Your task to perform on an android device: turn on location history Image 0: 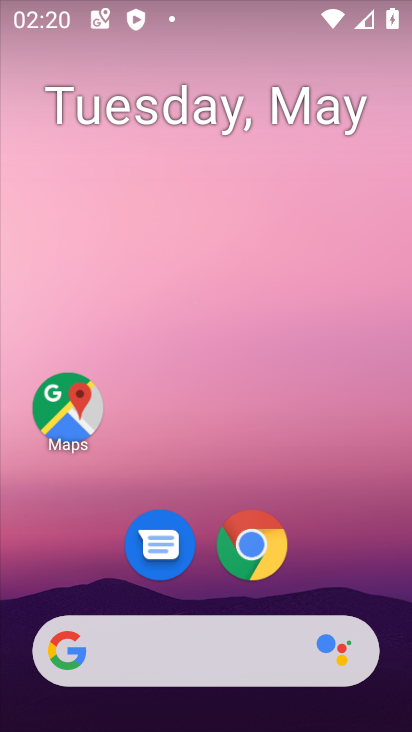
Step 0: click (67, 410)
Your task to perform on an android device: turn on location history Image 1: 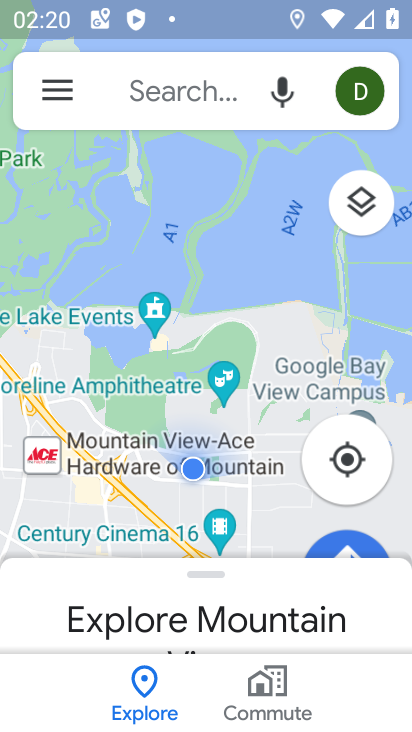
Step 1: click (58, 90)
Your task to perform on an android device: turn on location history Image 2: 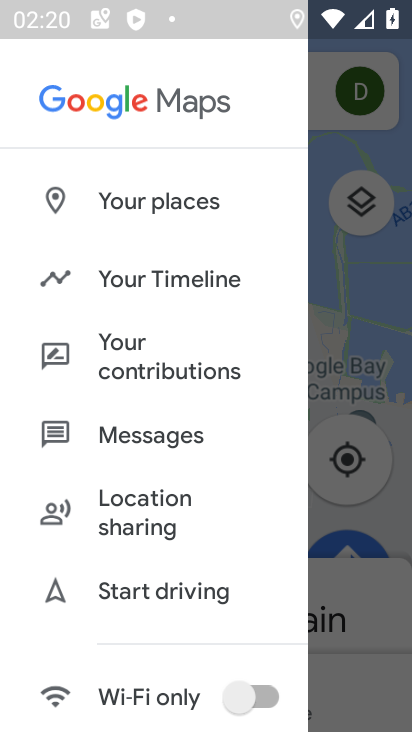
Step 2: drag from (248, 636) to (275, 77)
Your task to perform on an android device: turn on location history Image 3: 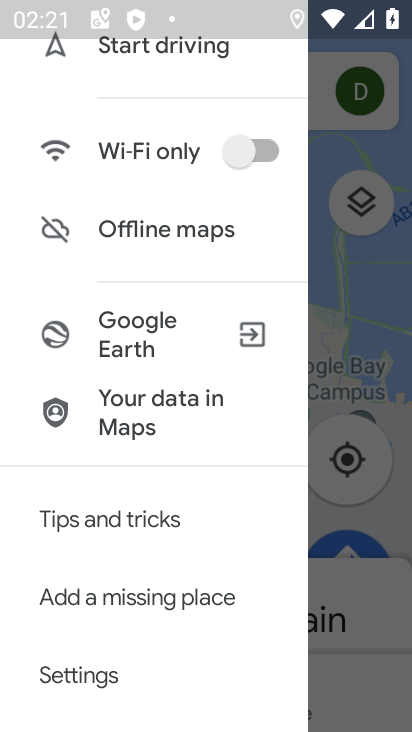
Step 3: drag from (229, 642) to (232, 144)
Your task to perform on an android device: turn on location history Image 4: 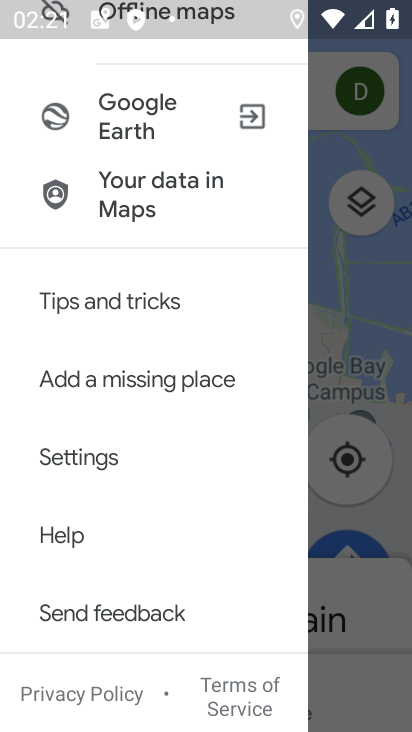
Step 4: click (82, 462)
Your task to perform on an android device: turn on location history Image 5: 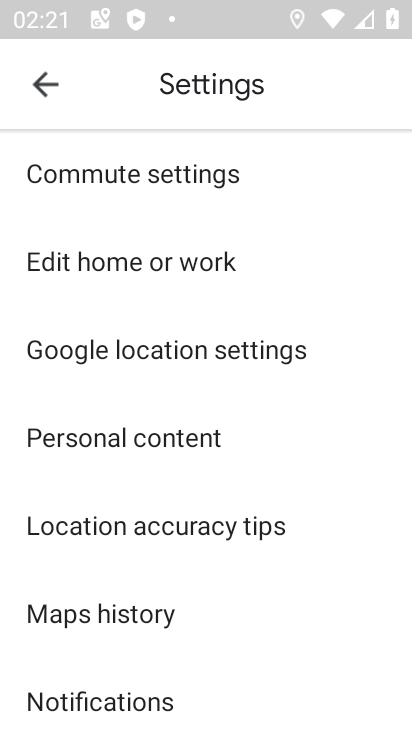
Step 5: click (99, 448)
Your task to perform on an android device: turn on location history Image 6: 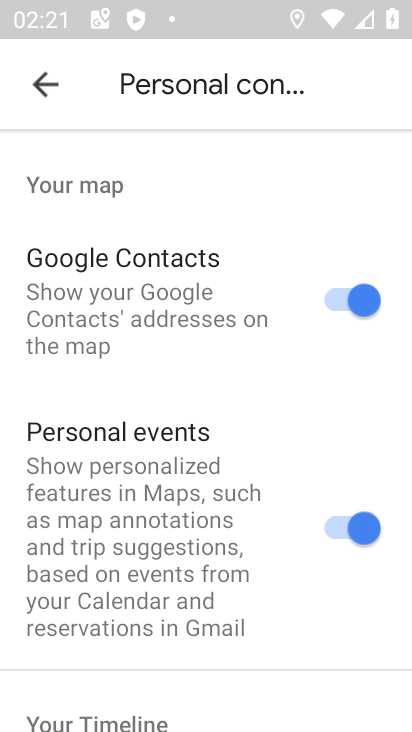
Step 6: drag from (289, 686) to (306, 208)
Your task to perform on an android device: turn on location history Image 7: 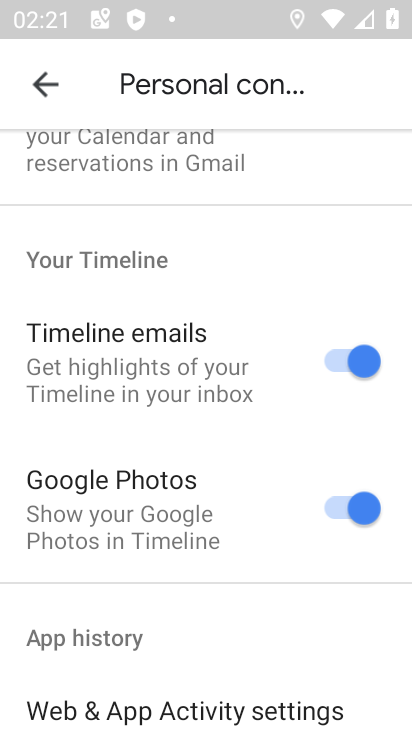
Step 7: drag from (260, 605) to (271, 141)
Your task to perform on an android device: turn on location history Image 8: 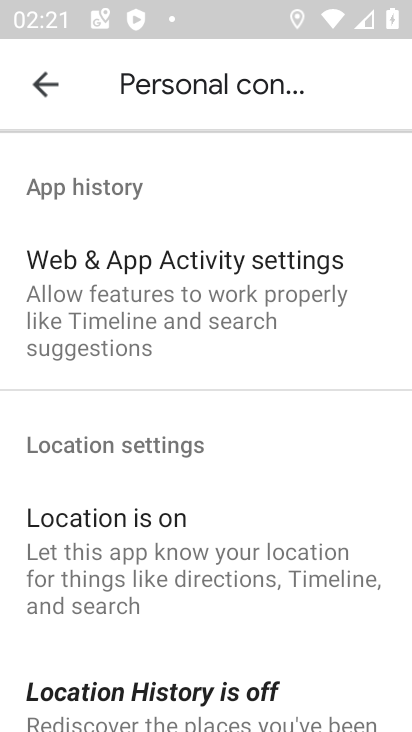
Step 8: drag from (235, 575) to (255, 162)
Your task to perform on an android device: turn on location history Image 9: 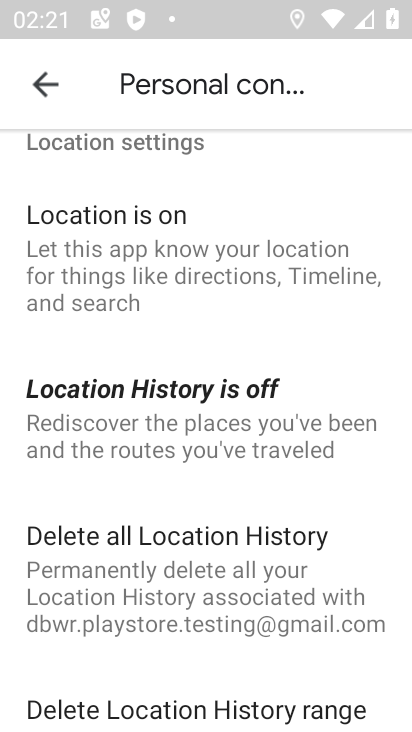
Step 9: click (138, 420)
Your task to perform on an android device: turn on location history Image 10: 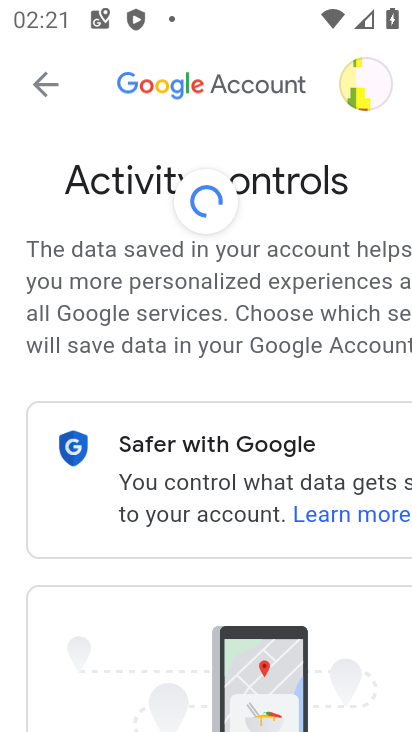
Step 10: task complete